Your task to perform on an android device: Search for dell xps on costco, select the first entry, and add it to the cart. Image 0: 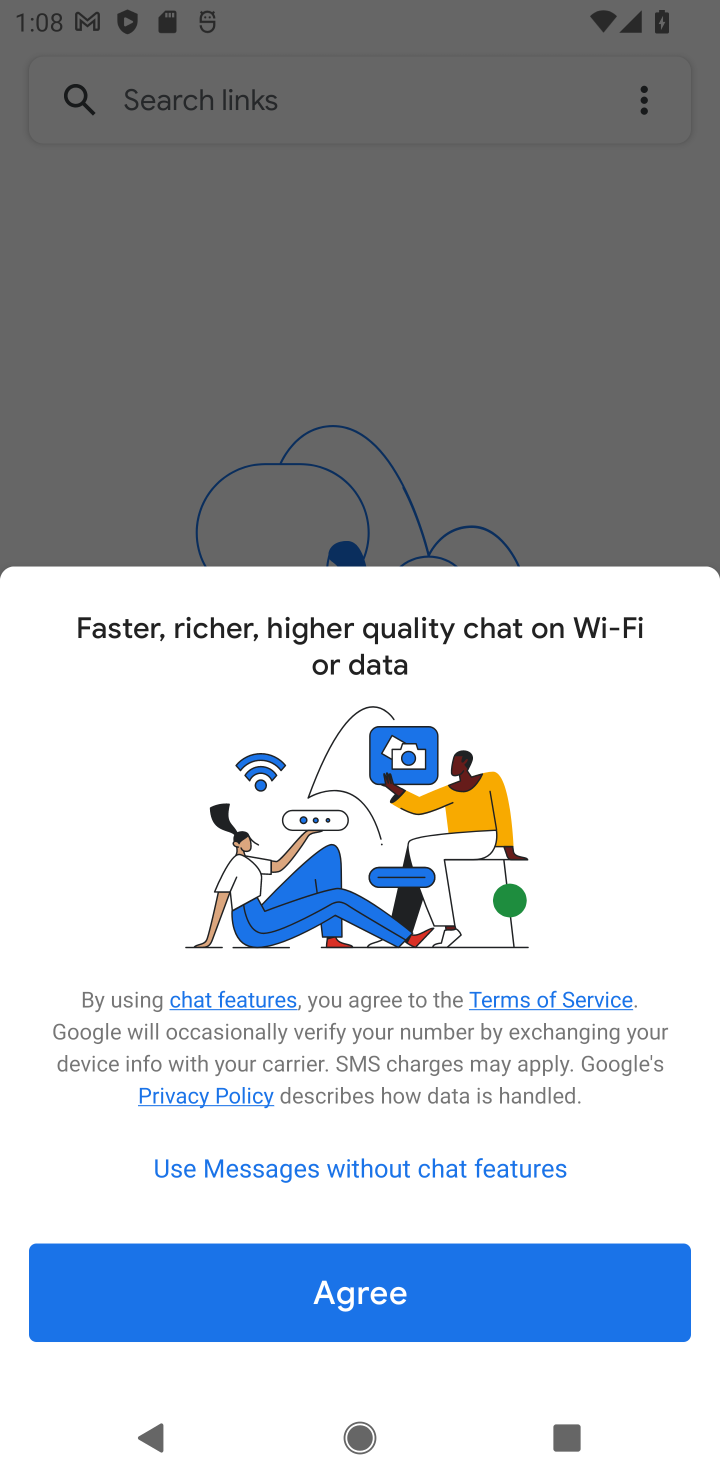
Step 0: task complete